Your task to perform on an android device: turn off translation in the chrome app Image 0: 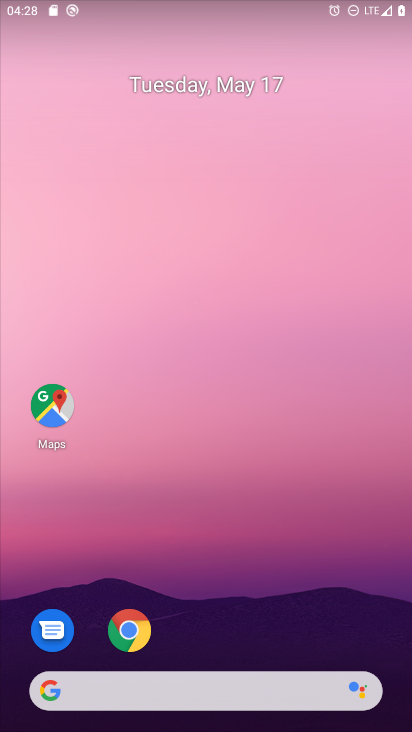
Step 0: click (141, 621)
Your task to perform on an android device: turn off translation in the chrome app Image 1: 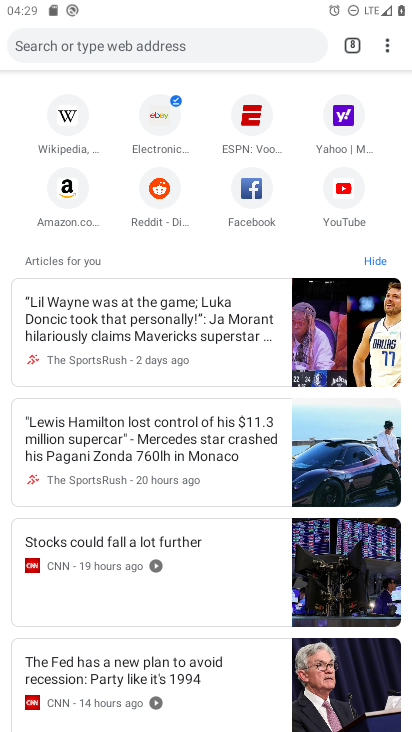
Step 1: drag from (392, 42) to (227, 379)
Your task to perform on an android device: turn off translation in the chrome app Image 2: 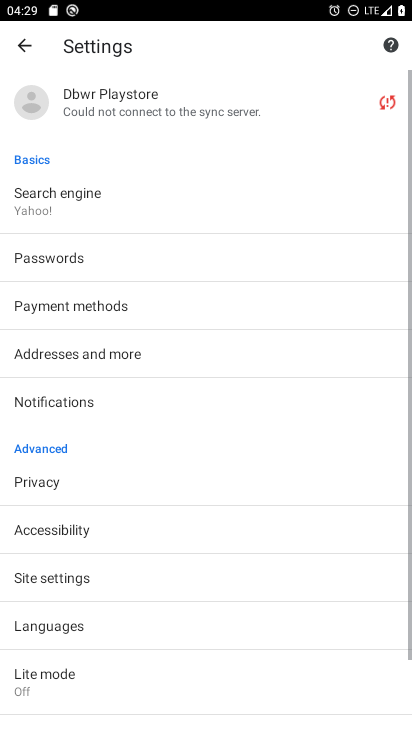
Step 2: click (62, 626)
Your task to perform on an android device: turn off translation in the chrome app Image 3: 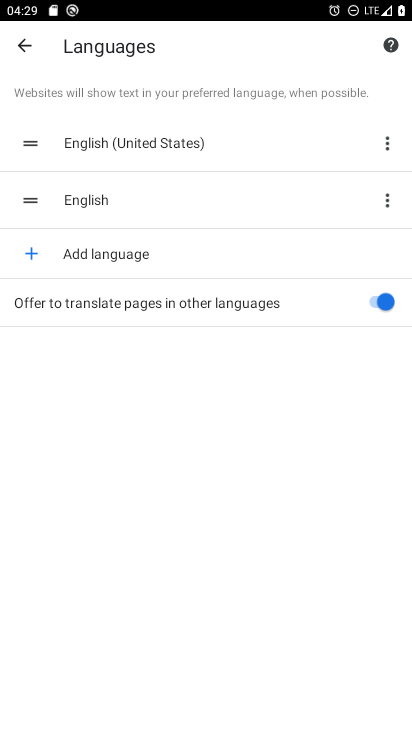
Step 3: click (382, 298)
Your task to perform on an android device: turn off translation in the chrome app Image 4: 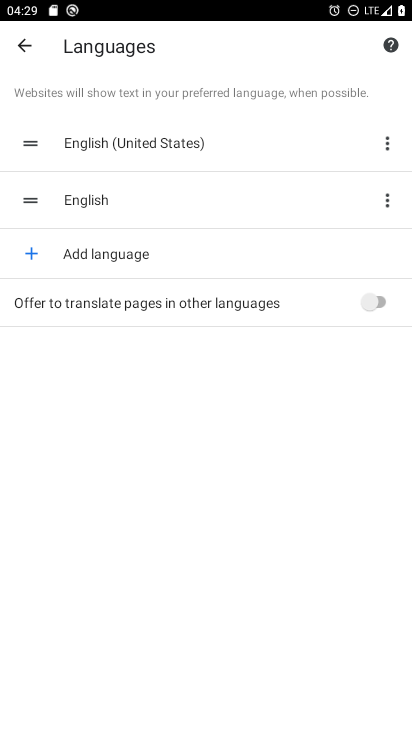
Step 4: task complete